Your task to perform on an android device: add a label to a message in the gmail app Image 0: 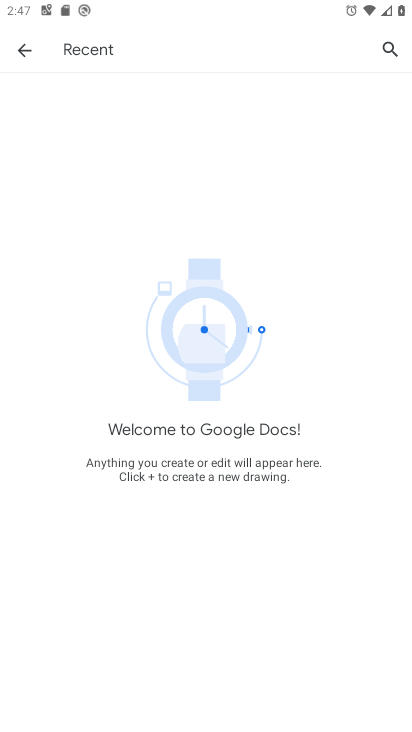
Step 0: press home button
Your task to perform on an android device: add a label to a message in the gmail app Image 1: 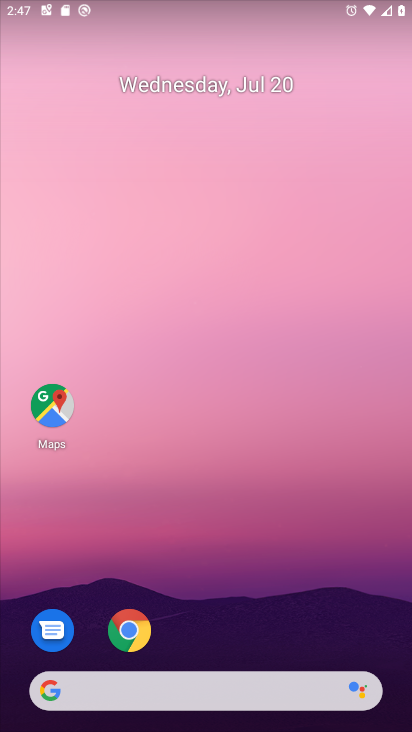
Step 1: drag from (205, 682) to (273, 117)
Your task to perform on an android device: add a label to a message in the gmail app Image 2: 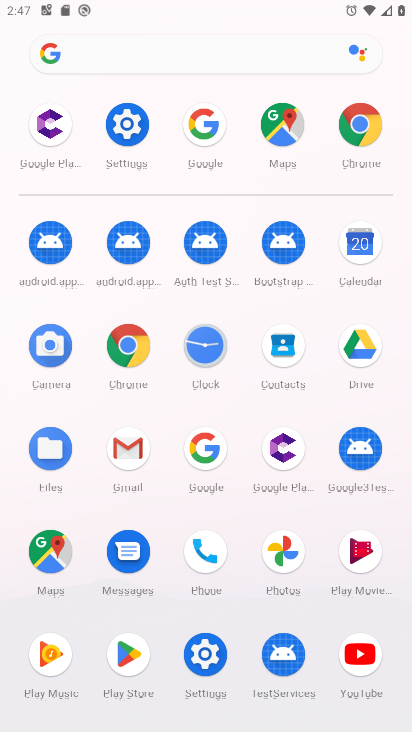
Step 2: click (130, 465)
Your task to perform on an android device: add a label to a message in the gmail app Image 3: 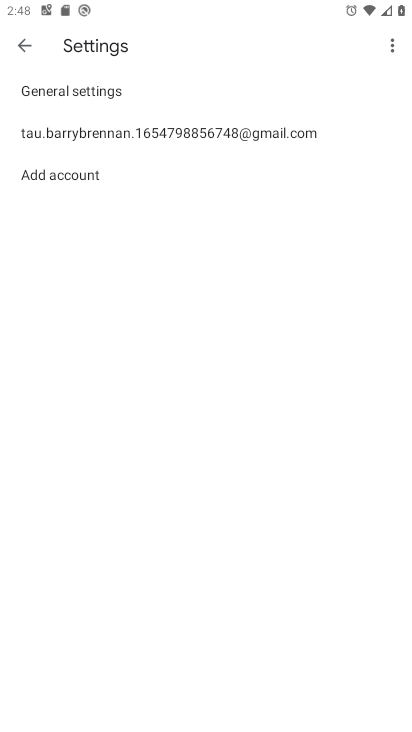
Step 3: click (15, 41)
Your task to perform on an android device: add a label to a message in the gmail app Image 4: 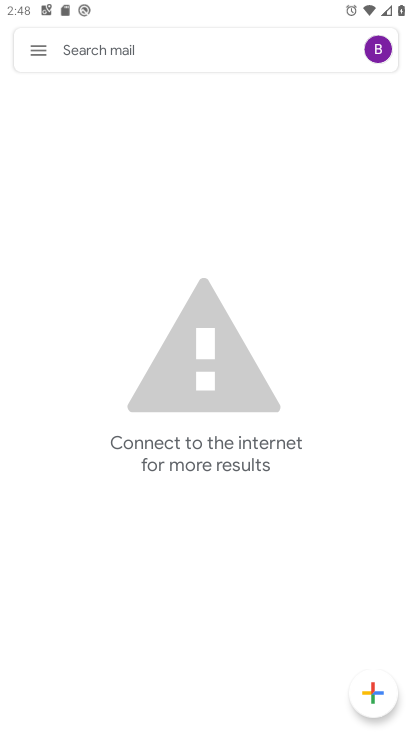
Step 4: task complete